Your task to perform on an android device: Open the calendar and show me this week's events Image 0: 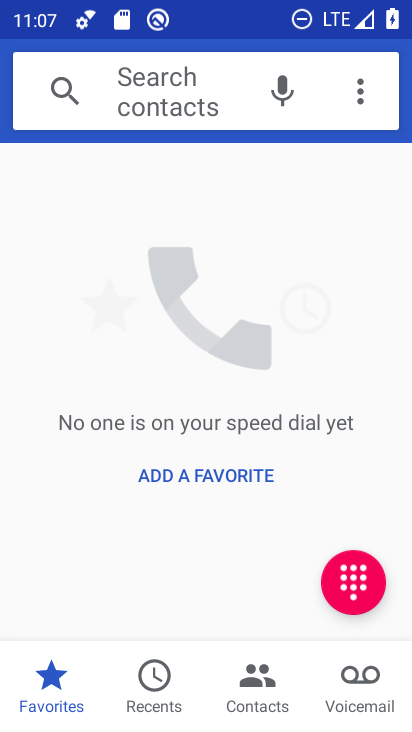
Step 0: press home button
Your task to perform on an android device: Open the calendar and show me this week's events Image 1: 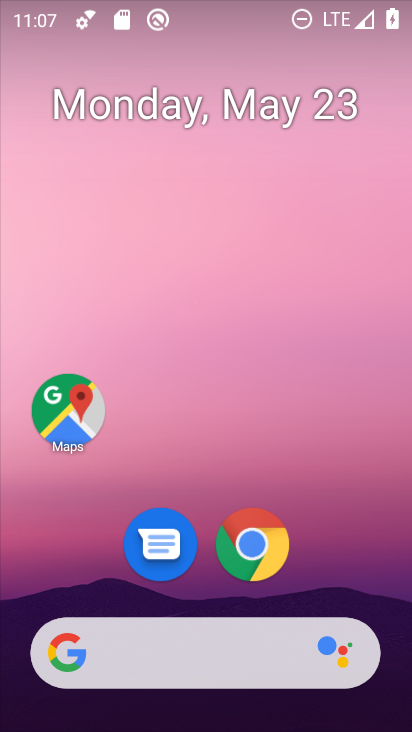
Step 1: drag from (381, 609) to (342, 138)
Your task to perform on an android device: Open the calendar and show me this week's events Image 2: 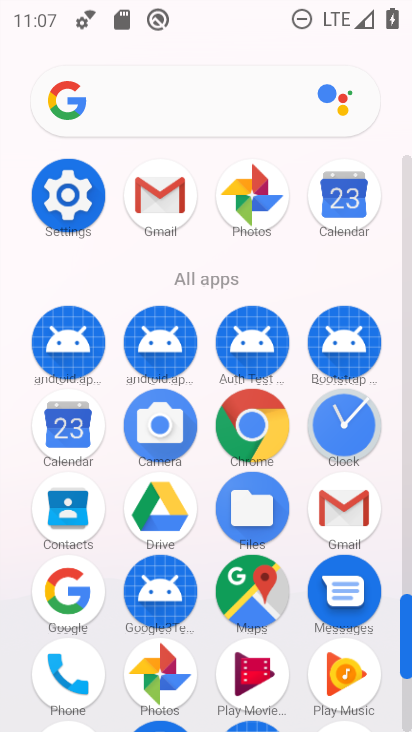
Step 2: click (74, 432)
Your task to perform on an android device: Open the calendar and show me this week's events Image 3: 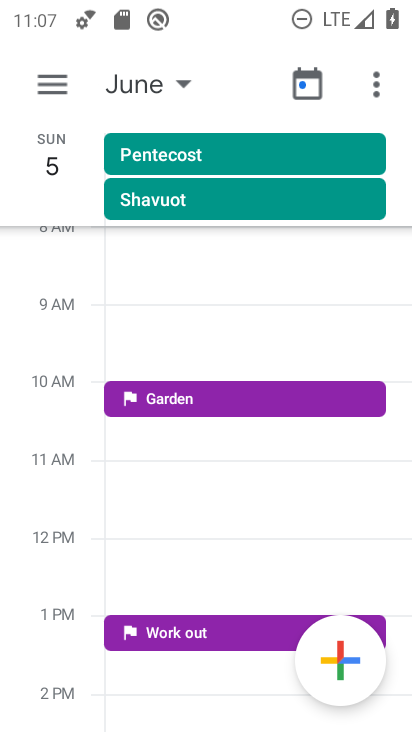
Step 3: click (55, 64)
Your task to perform on an android device: Open the calendar and show me this week's events Image 4: 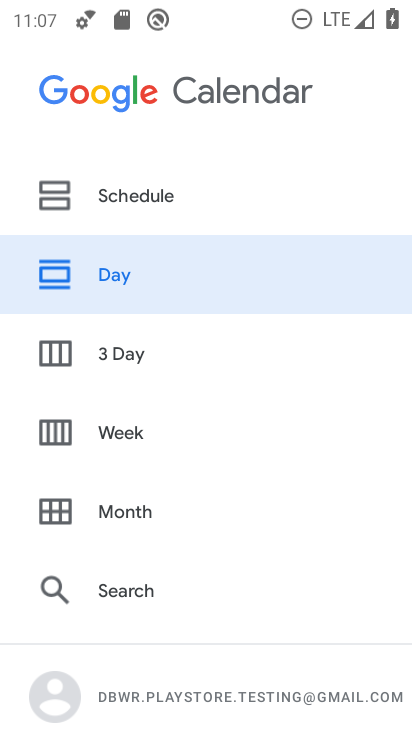
Step 4: click (120, 438)
Your task to perform on an android device: Open the calendar and show me this week's events Image 5: 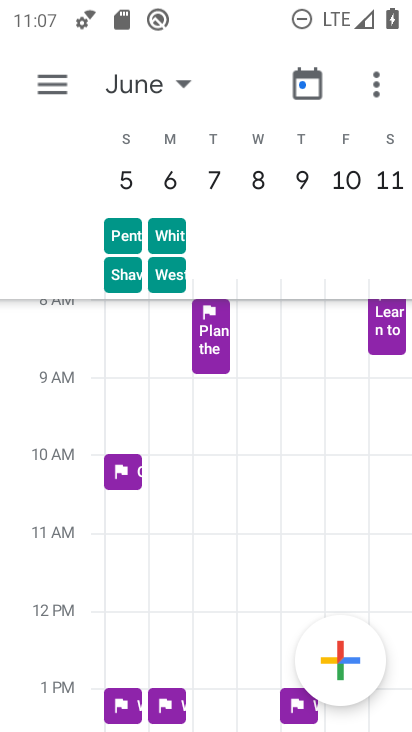
Step 5: click (181, 88)
Your task to perform on an android device: Open the calendar and show me this week's events Image 6: 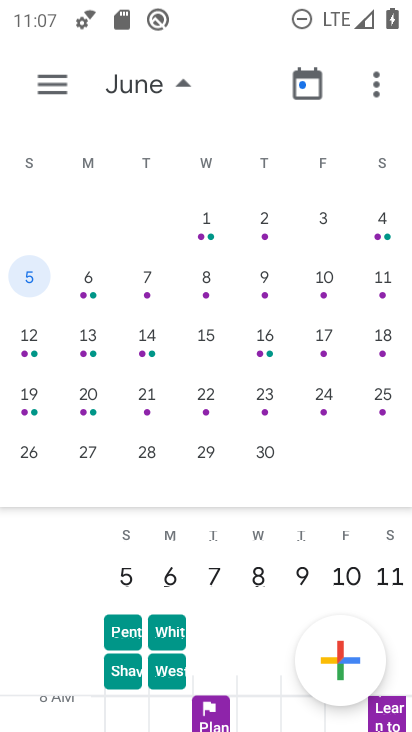
Step 6: drag from (75, 294) to (378, 318)
Your task to perform on an android device: Open the calendar and show me this week's events Image 7: 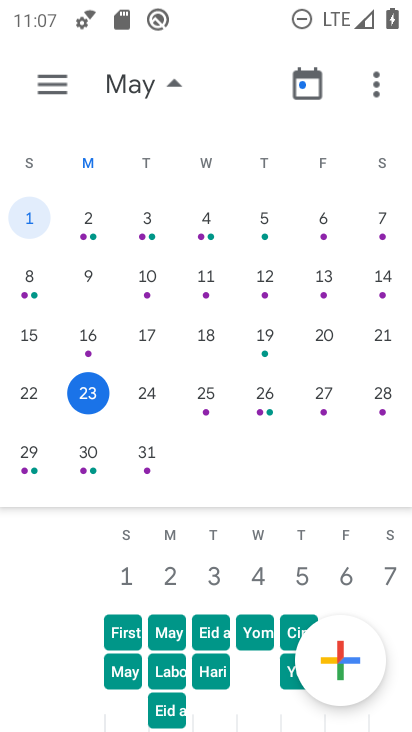
Step 7: click (100, 393)
Your task to perform on an android device: Open the calendar and show me this week's events Image 8: 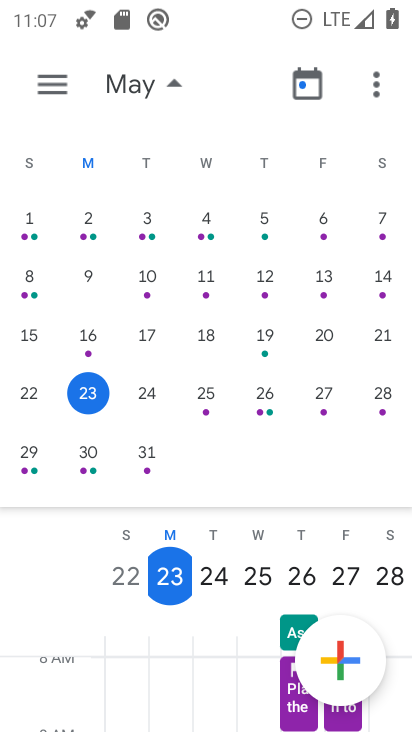
Step 8: task complete